Your task to perform on an android device: make emails show in primary in the gmail app Image 0: 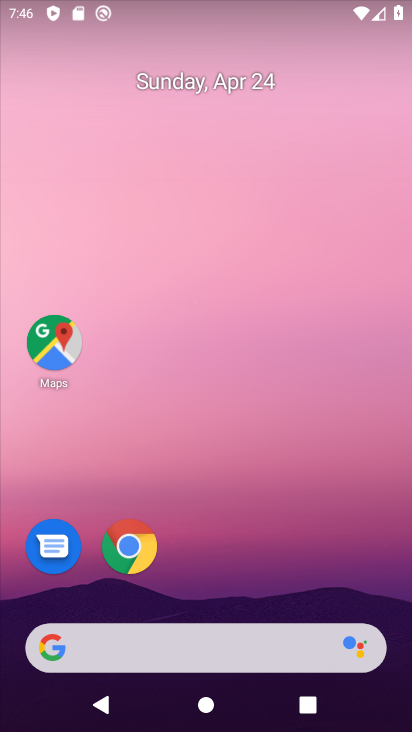
Step 0: drag from (188, 604) to (386, 475)
Your task to perform on an android device: make emails show in primary in the gmail app Image 1: 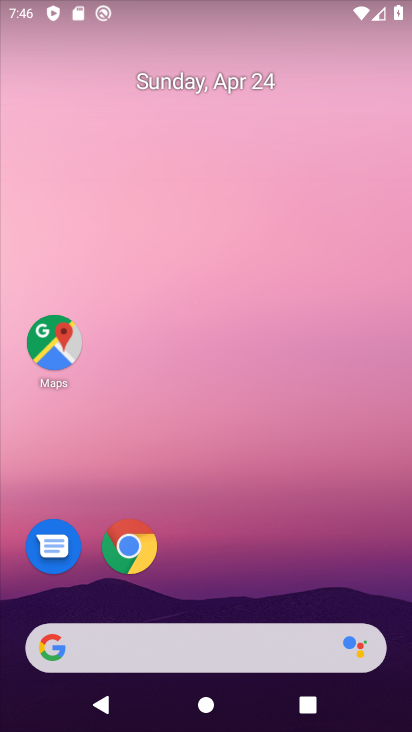
Step 1: drag from (227, 619) to (203, 3)
Your task to perform on an android device: make emails show in primary in the gmail app Image 2: 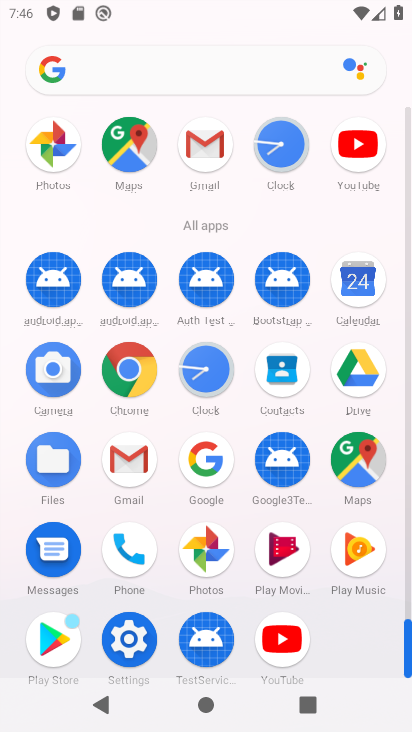
Step 2: click (128, 447)
Your task to perform on an android device: make emails show in primary in the gmail app Image 3: 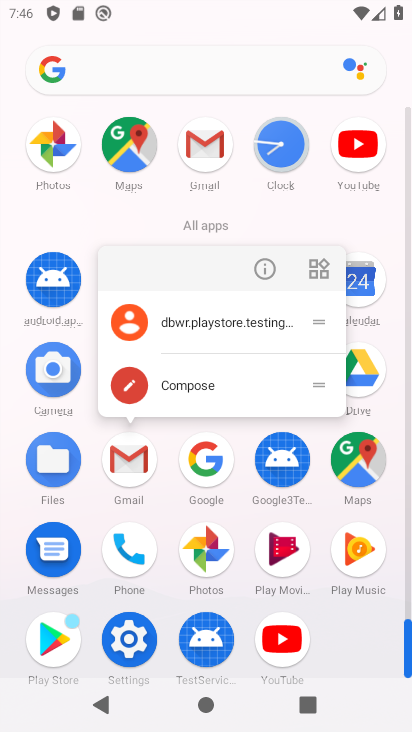
Step 3: click (268, 270)
Your task to perform on an android device: make emails show in primary in the gmail app Image 4: 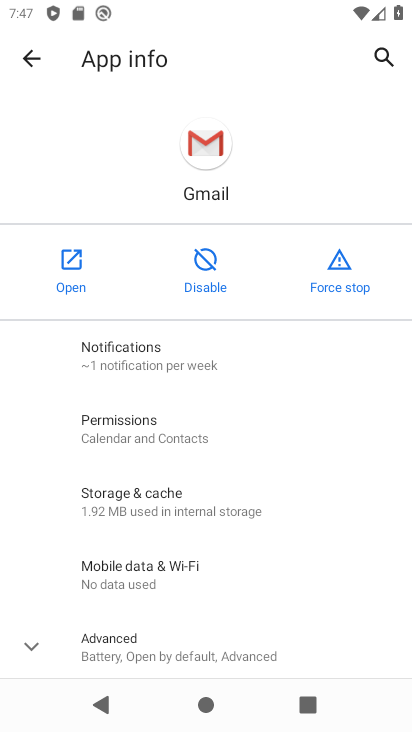
Step 4: click (69, 262)
Your task to perform on an android device: make emails show in primary in the gmail app Image 5: 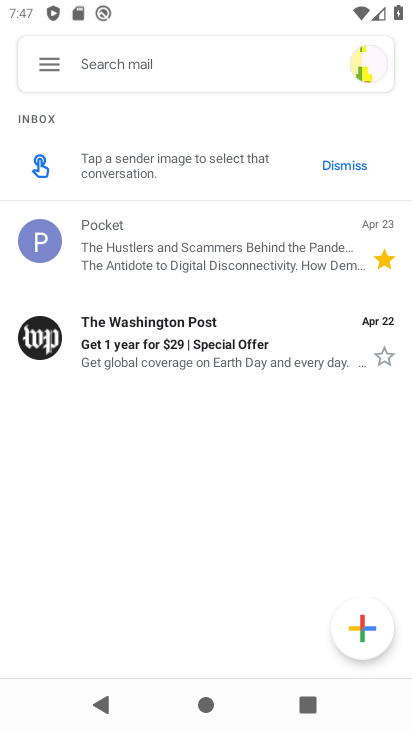
Step 5: click (35, 63)
Your task to perform on an android device: make emails show in primary in the gmail app Image 6: 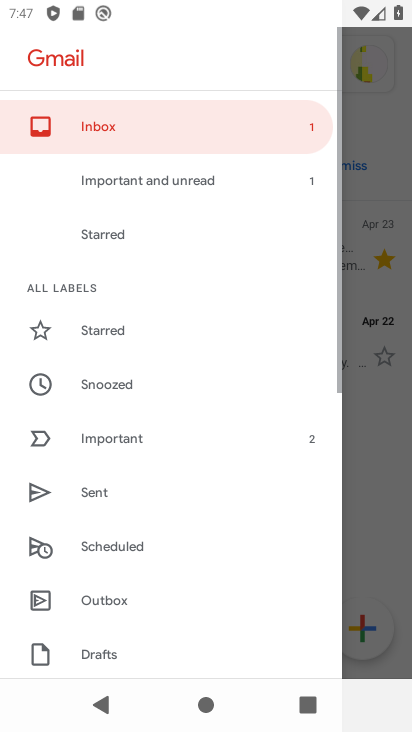
Step 6: click (123, 116)
Your task to perform on an android device: make emails show in primary in the gmail app Image 7: 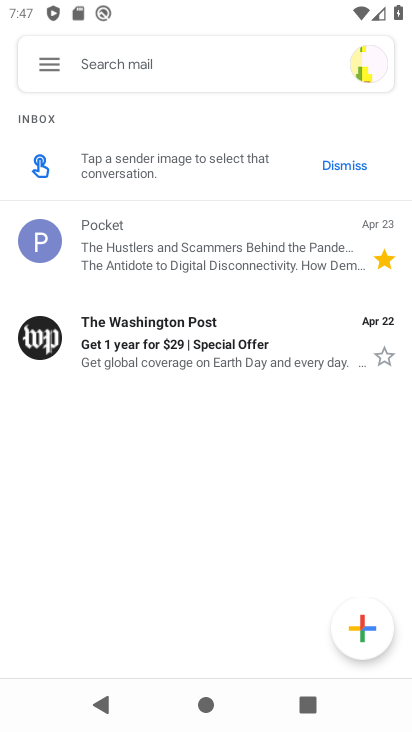
Step 7: task complete